Your task to perform on an android device: Go to Amazon Image 0: 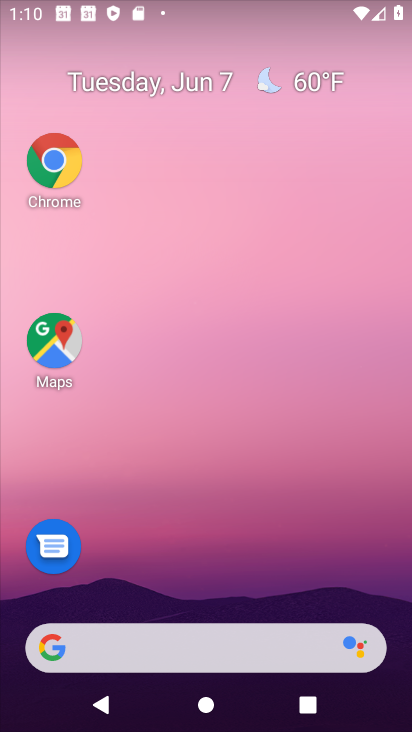
Step 0: drag from (209, 547) to (21, 7)
Your task to perform on an android device: Go to Amazon Image 1: 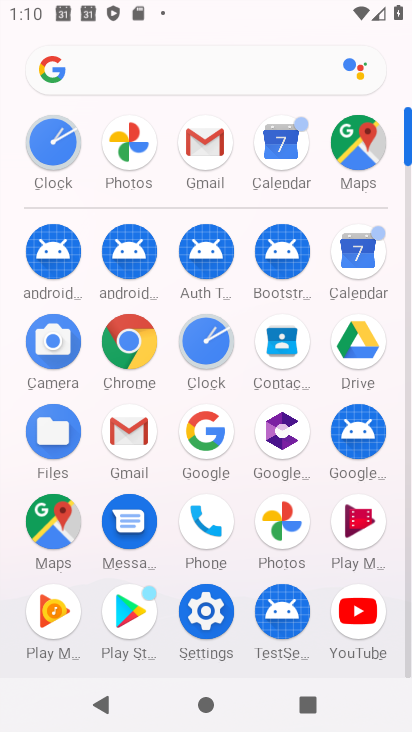
Step 1: click (166, 80)
Your task to perform on an android device: Go to Amazon Image 2: 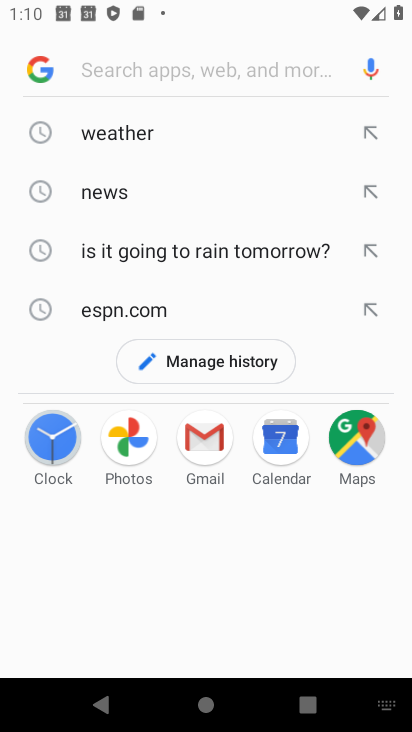
Step 2: type "Amazon"
Your task to perform on an android device: Go to Amazon Image 3: 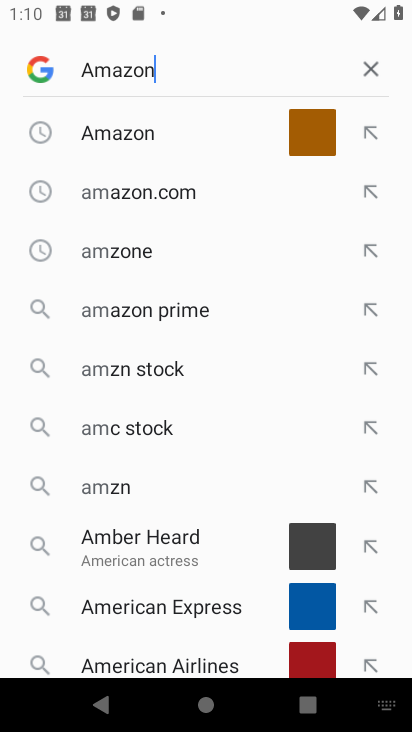
Step 3: type ""
Your task to perform on an android device: Go to Amazon Image 4: 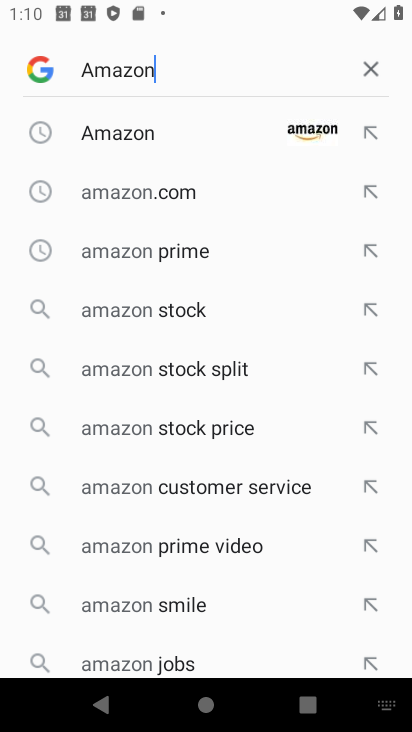
Step 4: click (99, 132)
Your task to perform on an android device: Go to Amazon Image 5: 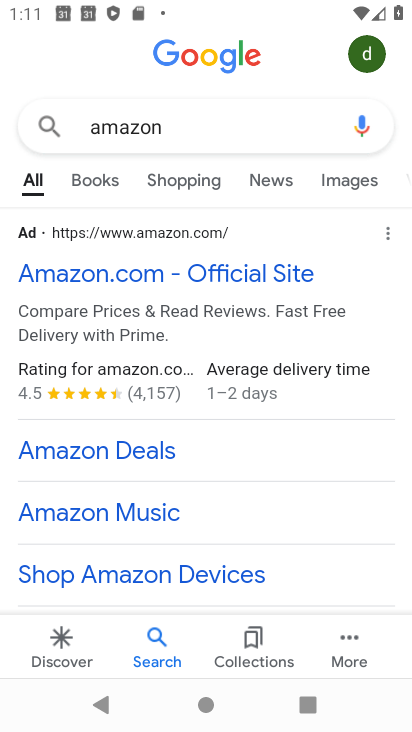
Step 5: click (80, 269)
Your task to perform on an android device: Go to Amazon Image 6: 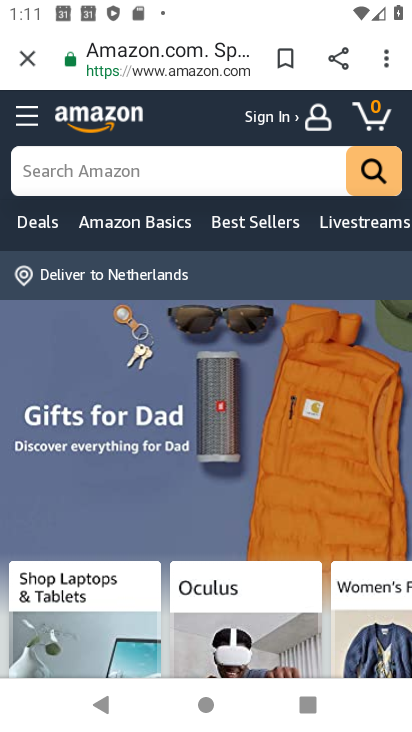
Step 6: task complete